Your task to perform on an android device: Open Chrome and go to settings Image 0: 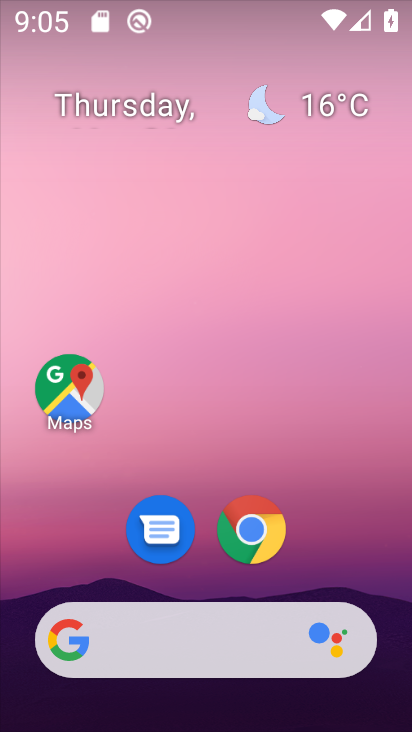
Step 0: click (248, 527)
Your task to perform on an android device: Open Chrome and go to settings Image 1: 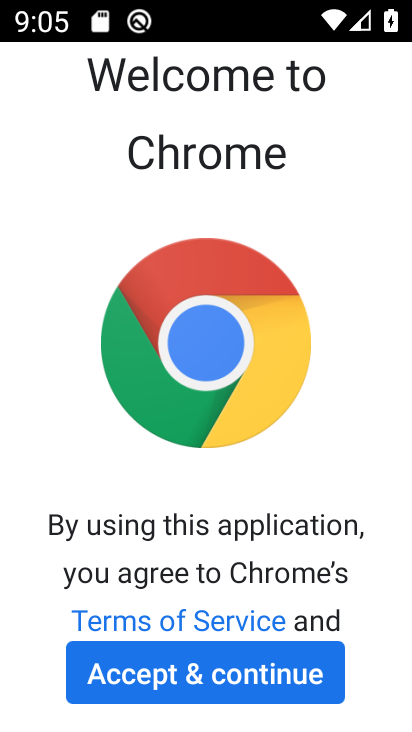
Step 1: click (215, 678)
Your task to perform on an android device: Open Chrome and go to settings Image 2: 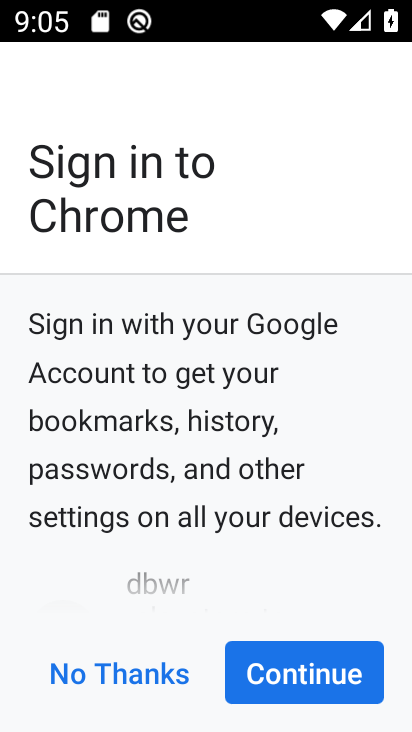
Step 2: click (337, 697)
Your task to perform on an android device: Open Chrome and go to settings Image 3: 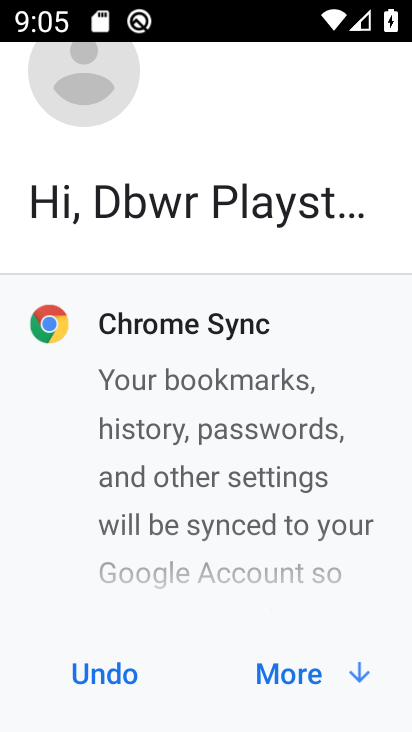
Step 3: click (350, 679)
Your task to perform on an android device: Open Chrome and go to settings Image 4: 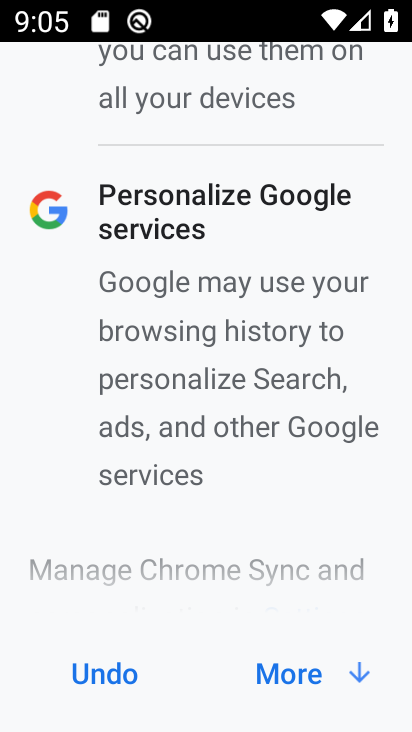
Step 4: click (349, 678)
Your task to perform on an android device: Open Chrome and go to settings Image 5: 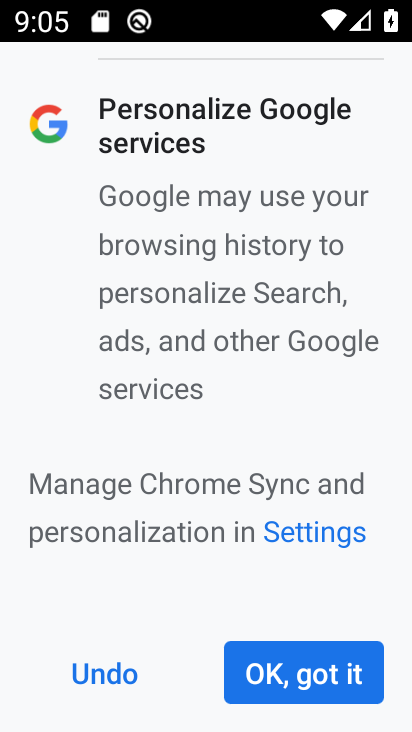
Step 5: click (344, 678)
Your task to perform on an android device: Open Chrome and go to settings Image 6: 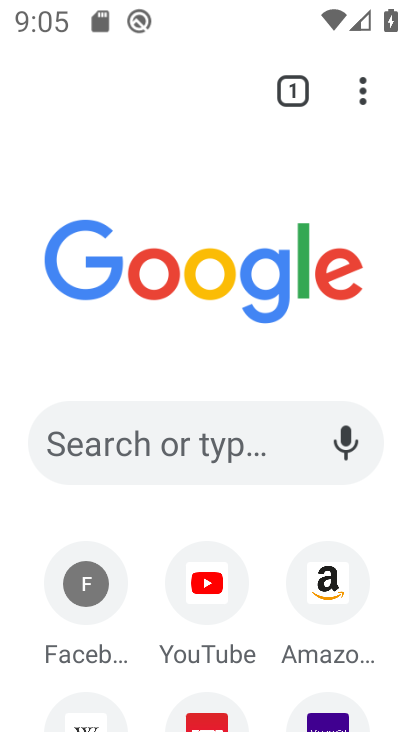
Step 6: task complete